Your task to perform on an android device: check the backup settings in the google photos Image 0: 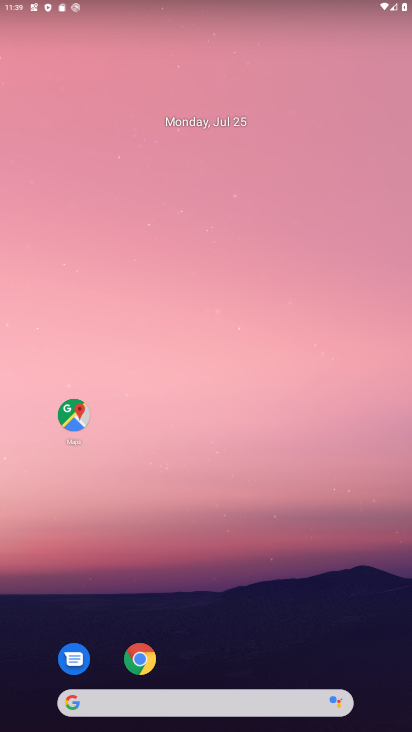
Step 0: drag from (182, 345) to (220, 9)
Your task to perform on an android device: check the backup settings in the google photos Image 1: 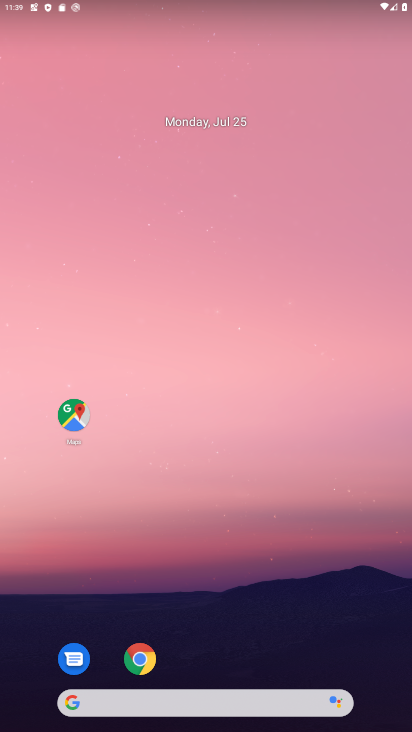
Step 1: drag from (200, 626) to (227, 14)
Your task to perform on an android device: check the backup settings in the google photos Image 2: 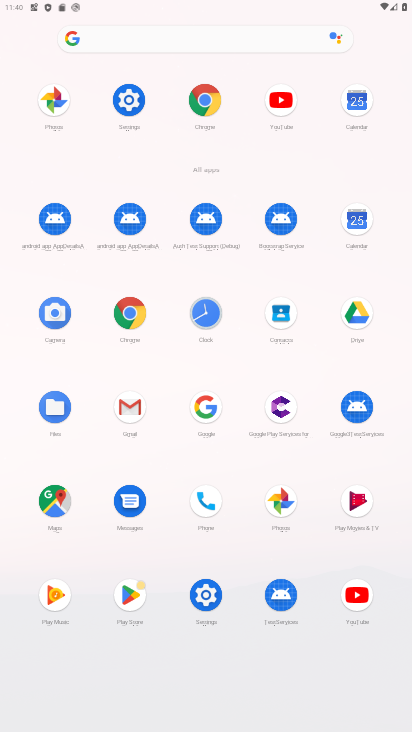
Step 2: click (275, 506)
Your task to perform on an android device: check the backup settings in the google photos Image 3: 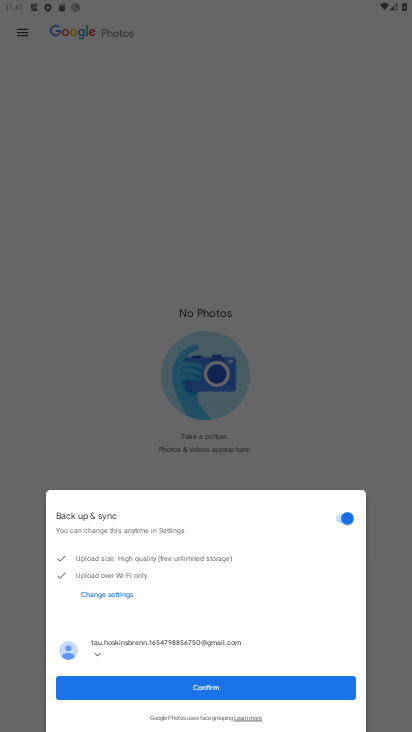
Step 3: click (201, 693)
Your task to perform on an android device: check the backup settings in the google photos Image 4: 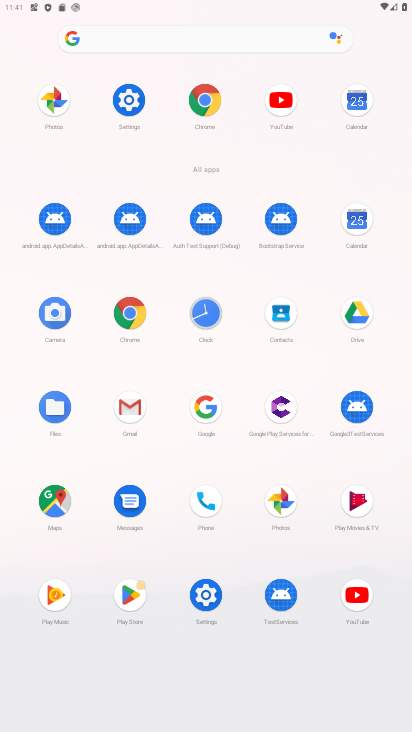
Step 4: click (201, 589)
Your task to perform on an android device: check the backup settings in the google photos Image 5: 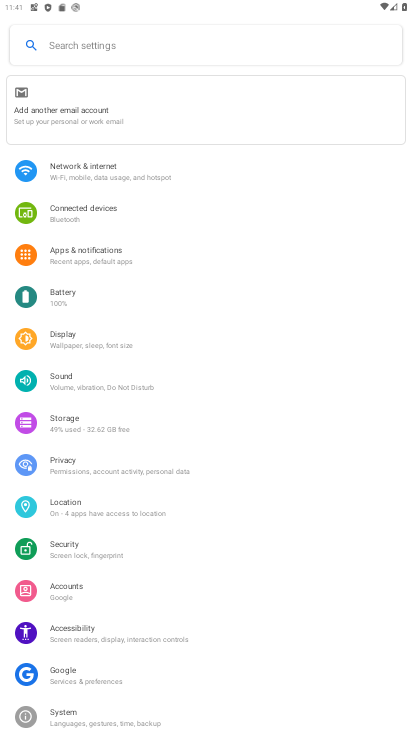
Step 5: press home button
Your task to perform on an android device: check the backup settings in the google photos Image 6: 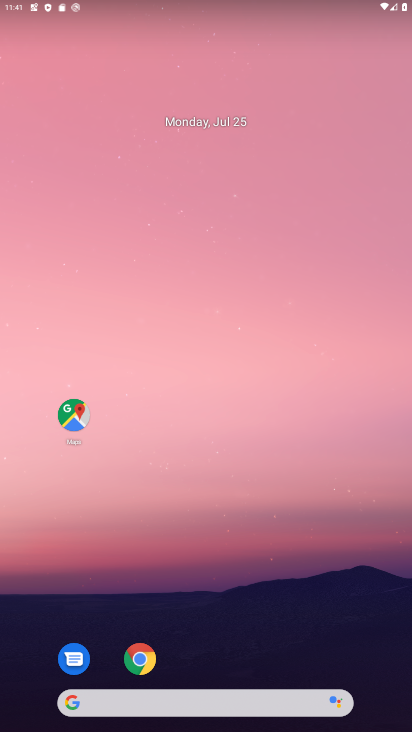
Step 6: drag from (208, 617) to (203, 208)
Your task to perform on an android device: check the backup settings in the google photos Image 7: 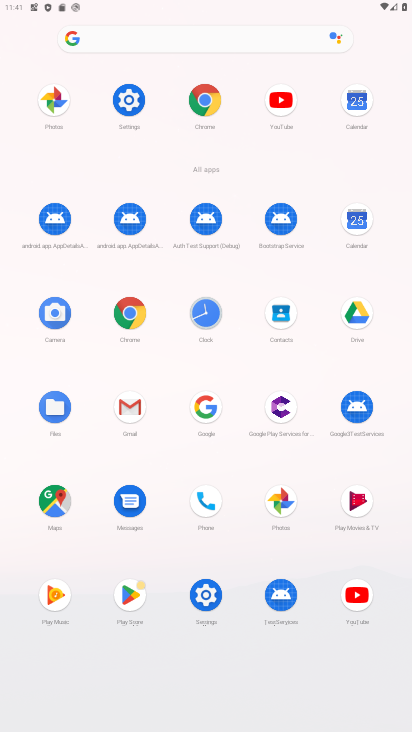
Step 7: click (281, 506)
Your task to perform on an android device: check the backup settings in the google photos Image 8: 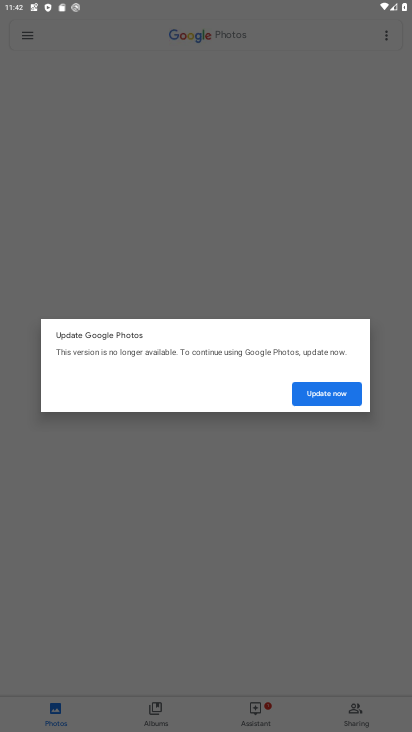
Step 8: click (332, 397)
Your task to perform on an android device: check the backup settings in the google photos Image 9: 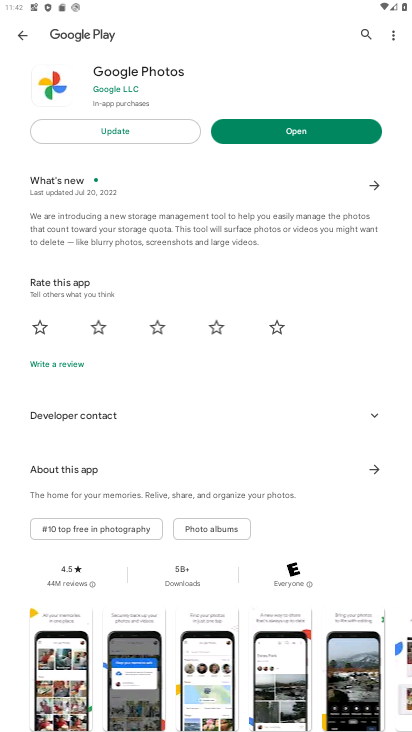
Step 9: click (125, 124)
Your task to perform on an android device: check the backup settings in the google photos Image 10: 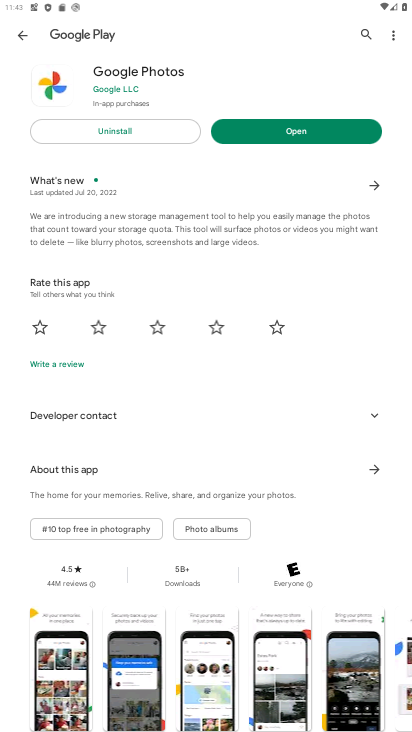
Step 10: click (283, 138)
Your task to perform on an android device: check the backup settings in the google photos Image 11: 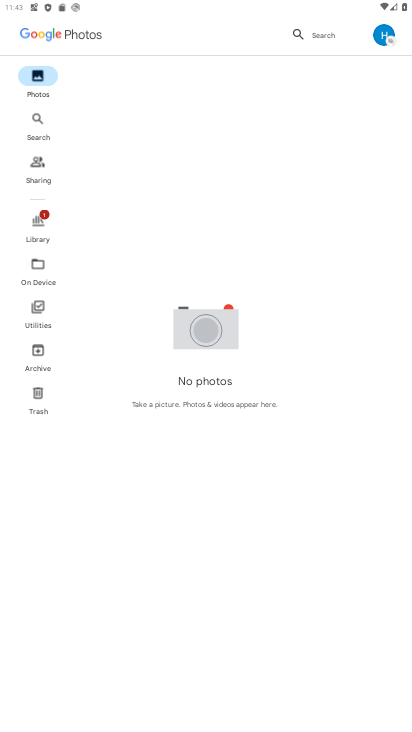
Step 11: click (385, 39)
Your task to perform on an android device: check the backup settings in the google photos Image 12: 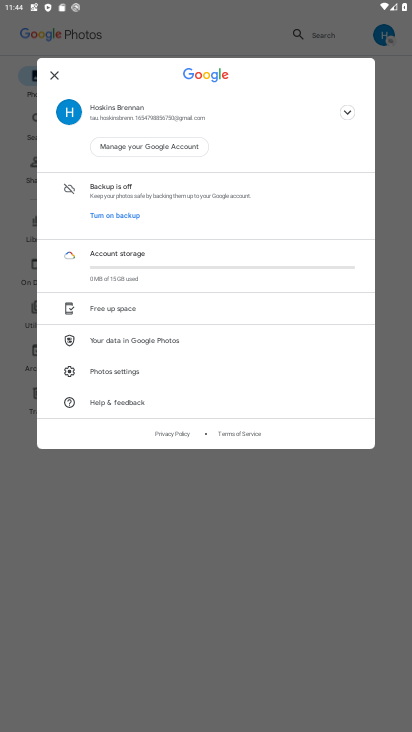
Step 12: click (119, 373)
Your task to perform on an android device: check the backup settings in the google photos Image 13: 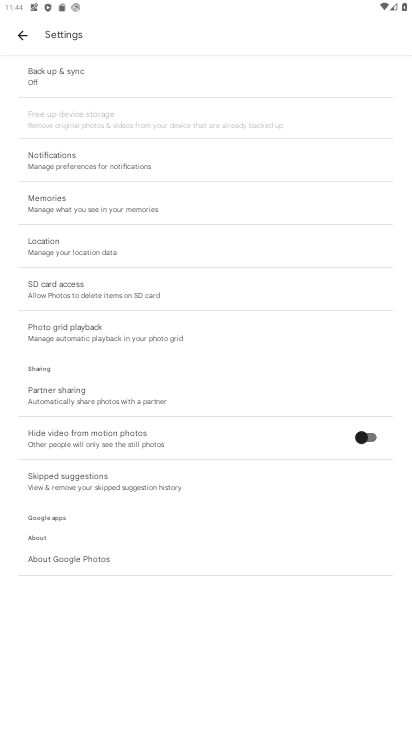
Step 13: click (50, 80)
Your task to perform on an android device: check the backup settings in the google photos Image 14: 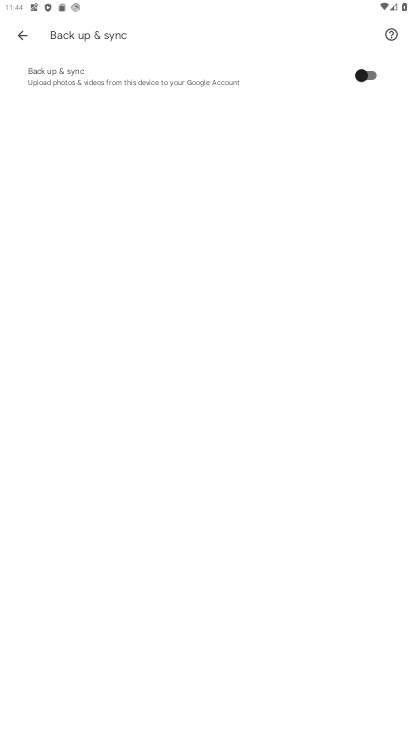
Step 14: click (374, 71)
Your task to perform on an android device: check the backup settings in the google photos Image 15: 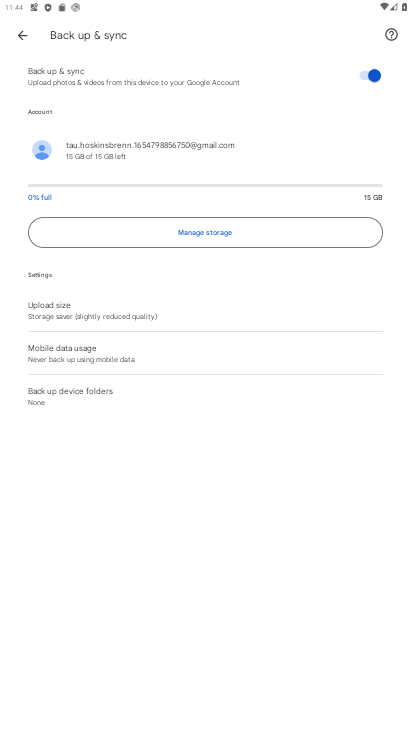
Step 15: task complete